Your task to perform on an android device: Show me the best 1080p monitor on Target.com Image 0: 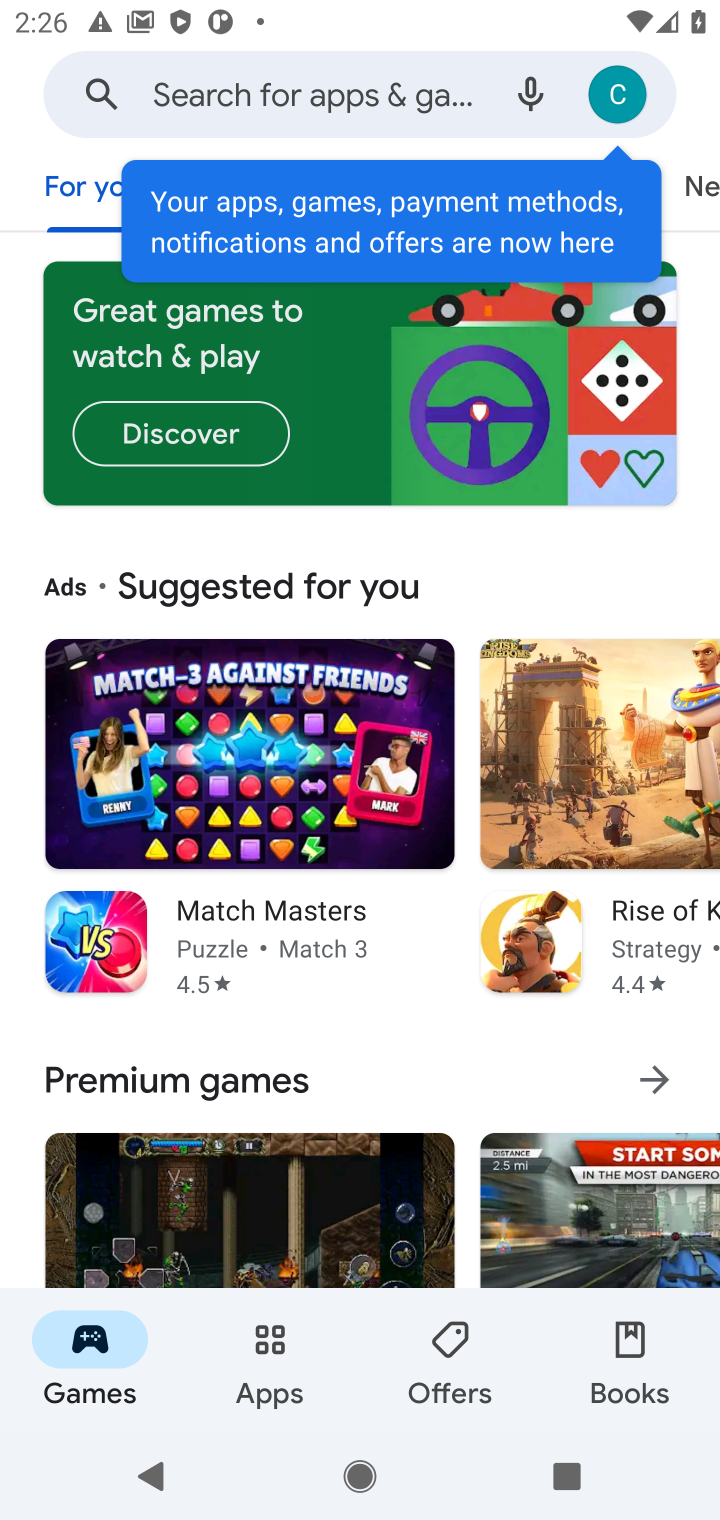
Step 0: press home button
Your task to perform on an android device: Show me the best 1080p monitor on Target.com Image 1: 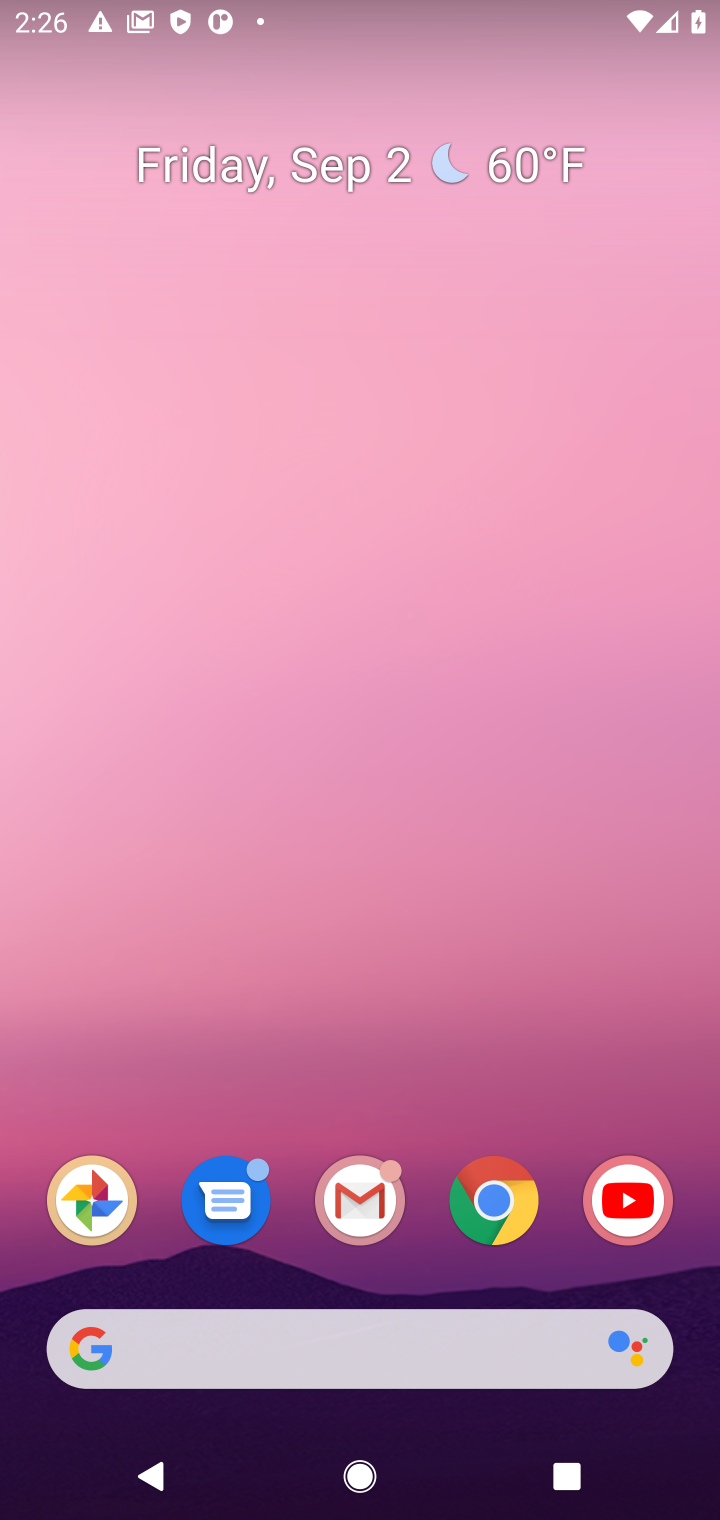
Step 1: click (489, 1203)
Your task to perform on an android device: Show me the best 1080p monitor on Target.com Image 2: 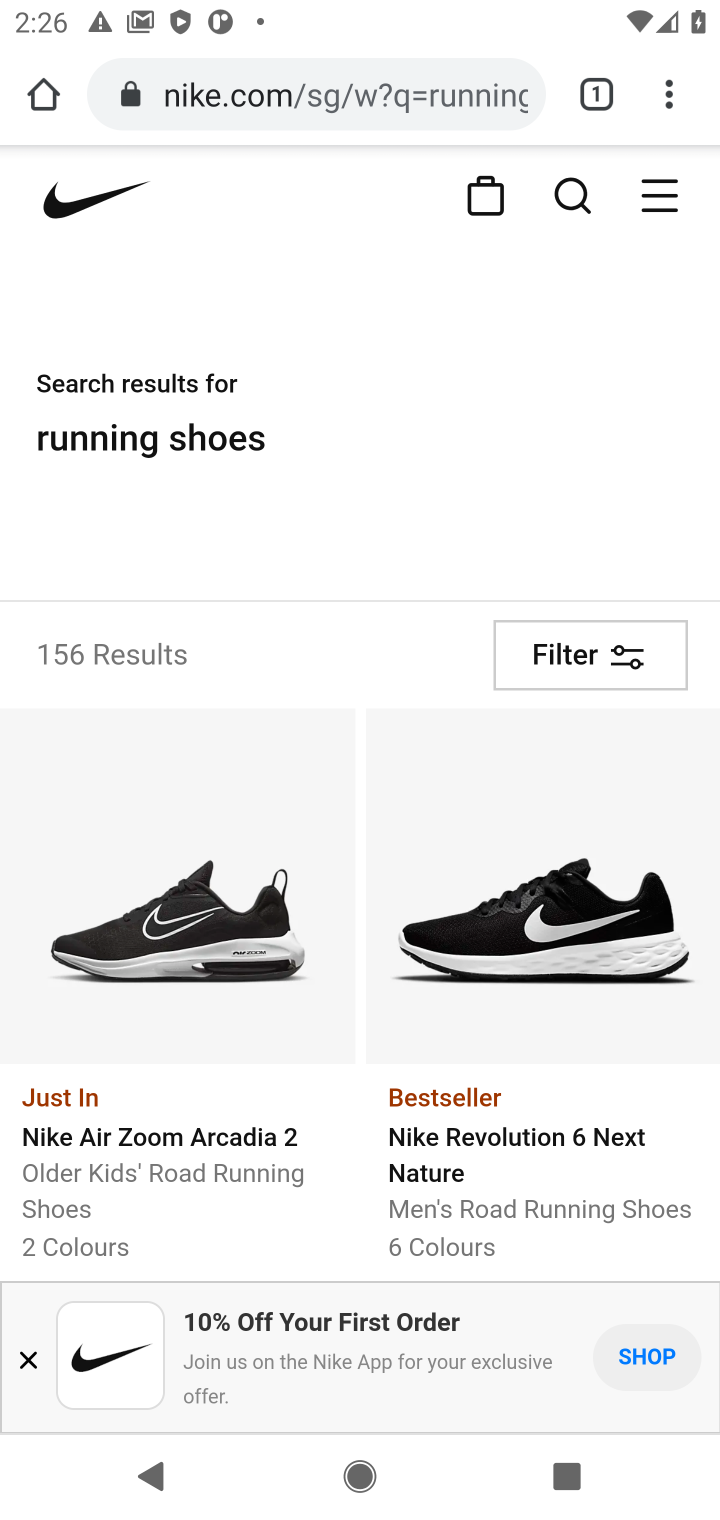
Step 2: click (445, 95)
Your task to perform on an android device: Show me the best 1080p monitor on Target.com Image 3: 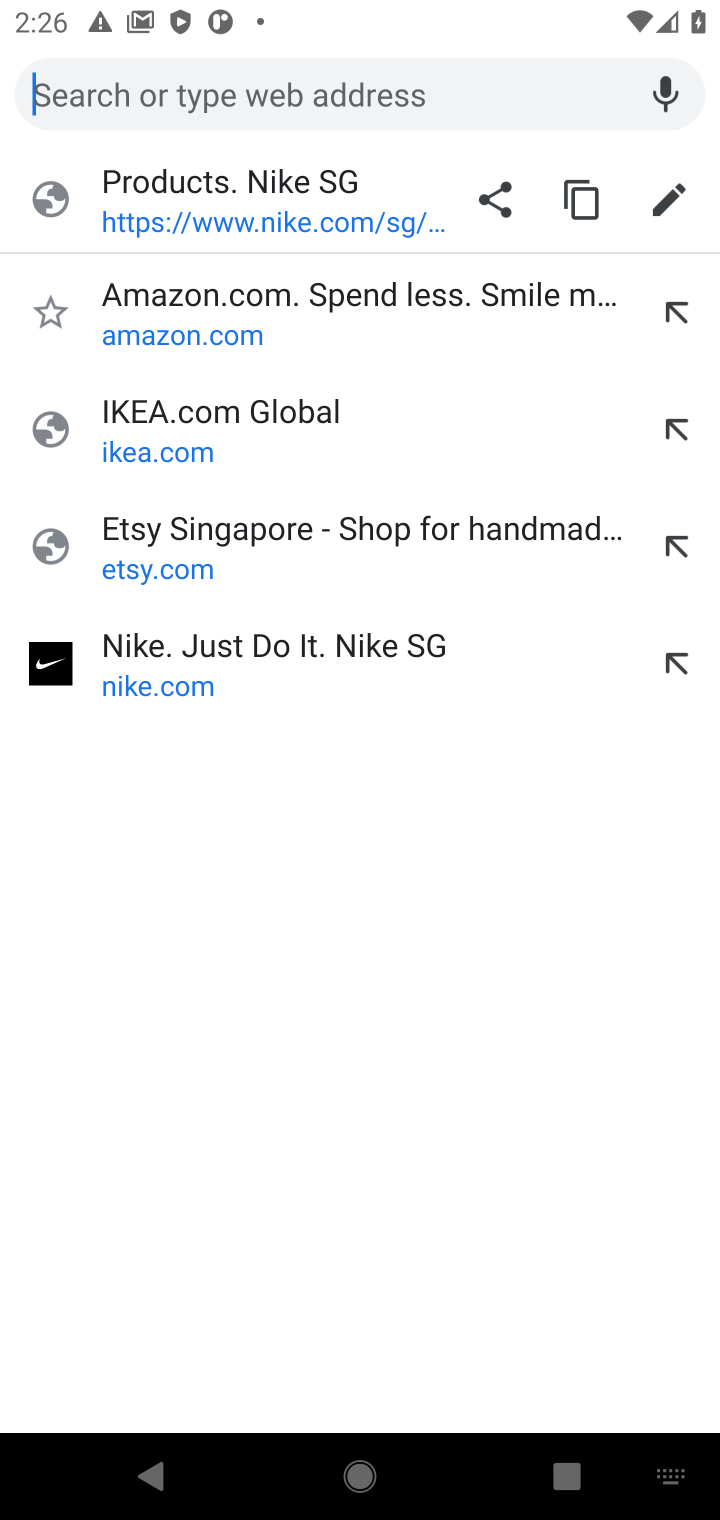
Step 3: type "Target.com"
Your task to perform on an android device: Show me the best 1080p monitor on Target.com Image 4: 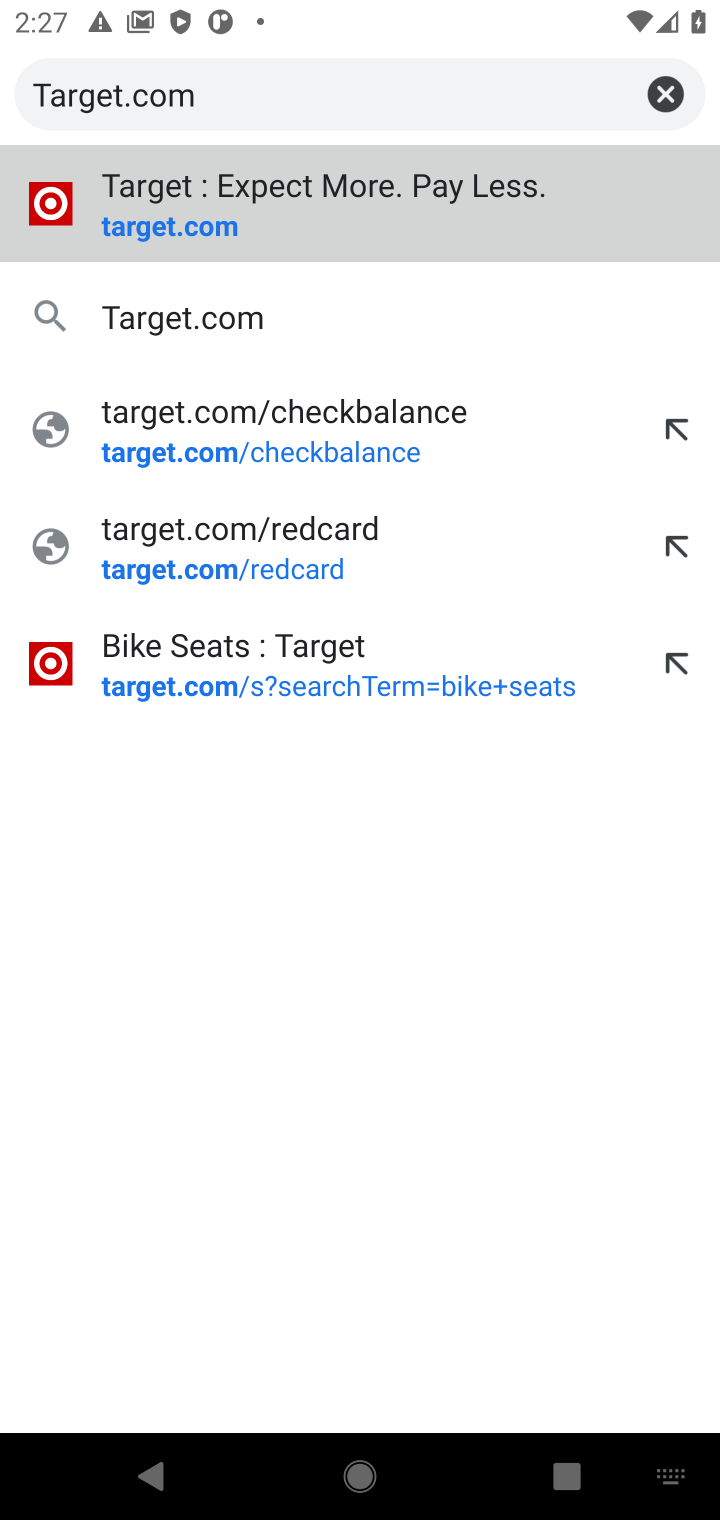
Step 4: press enter
Your task to perform on an android device: Show me the best 1080p monitor on Target.com Image 5: 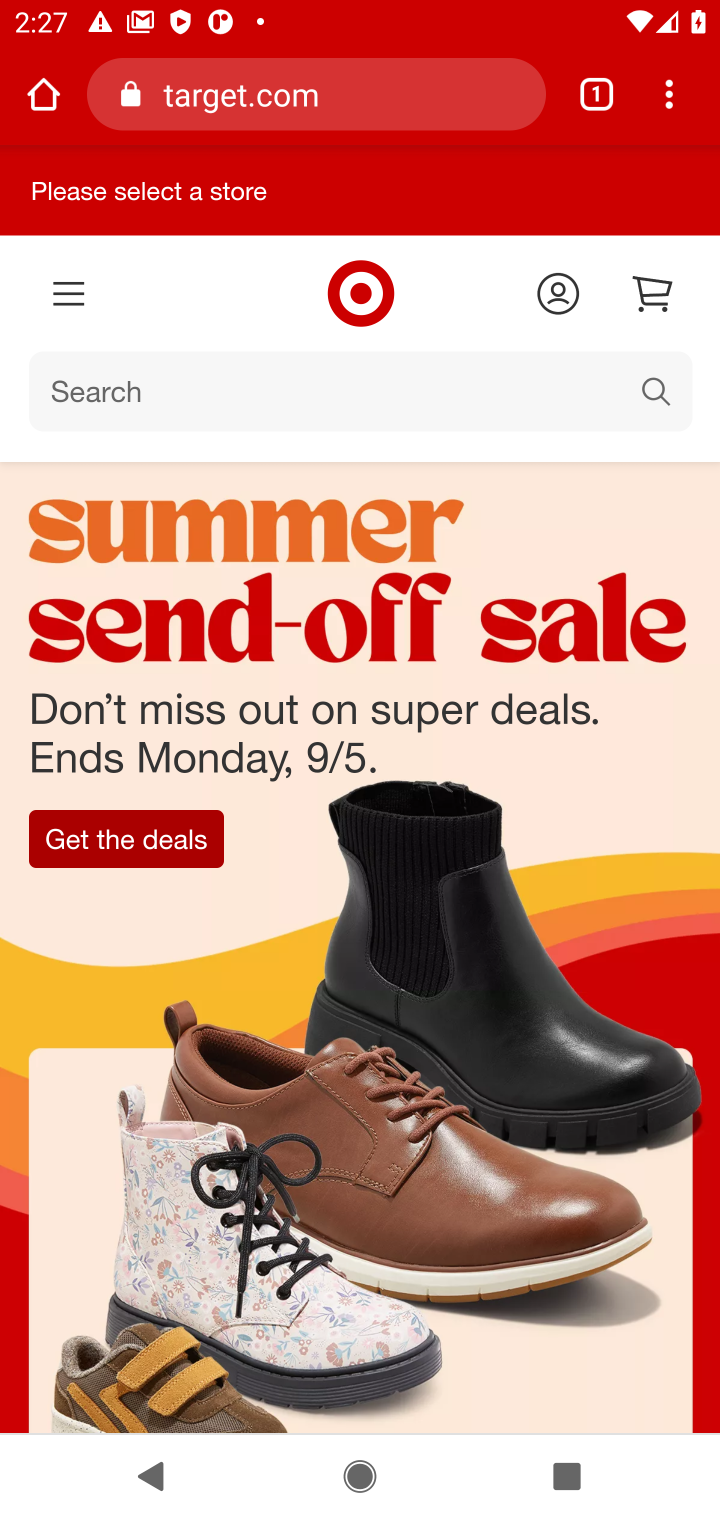
Step 5: click (647, 389)
Your task to perform on an android device: Show me the best 1080p monitor on Target.com Image 6: 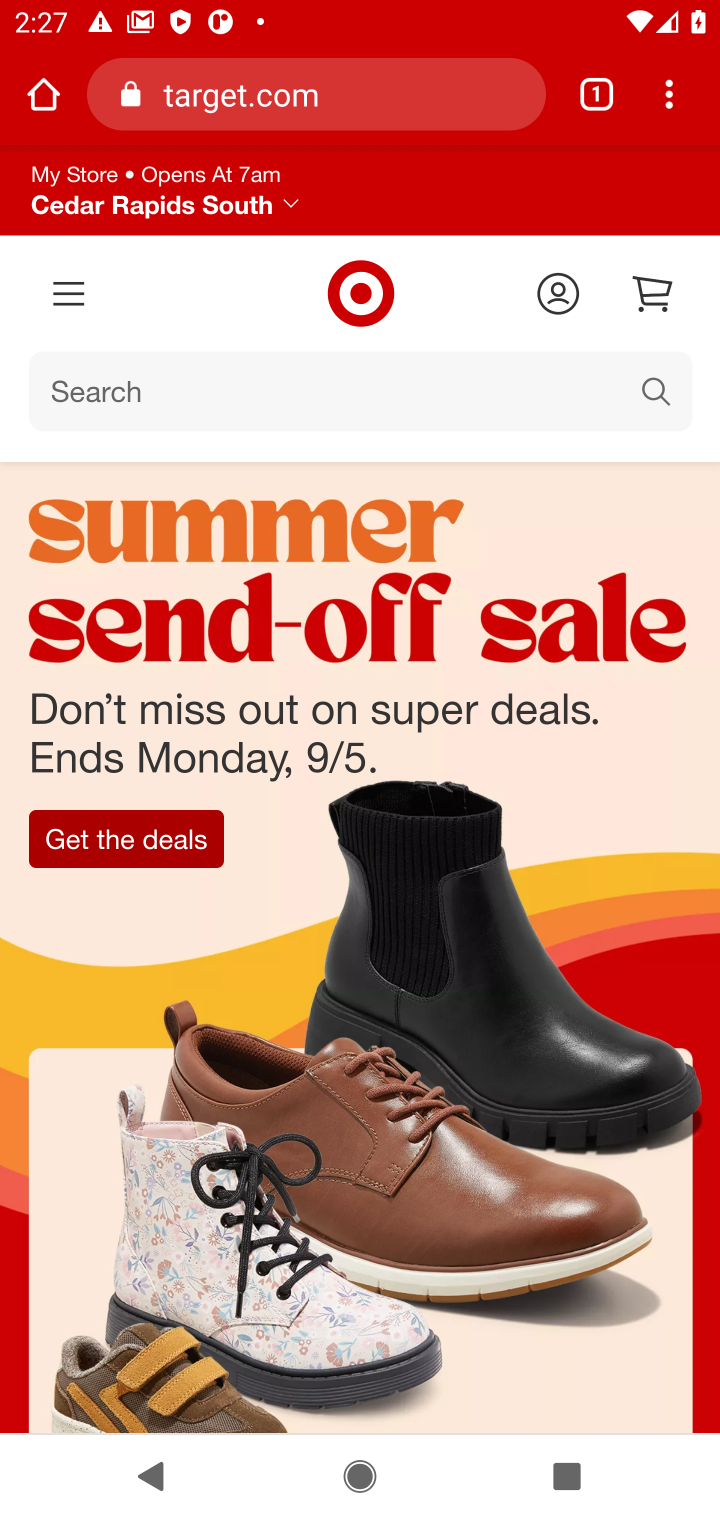
Step 6: click (654, 387)
Your task to perform on an android device: Show me the best 1080p monitor on Target.com Image 7: 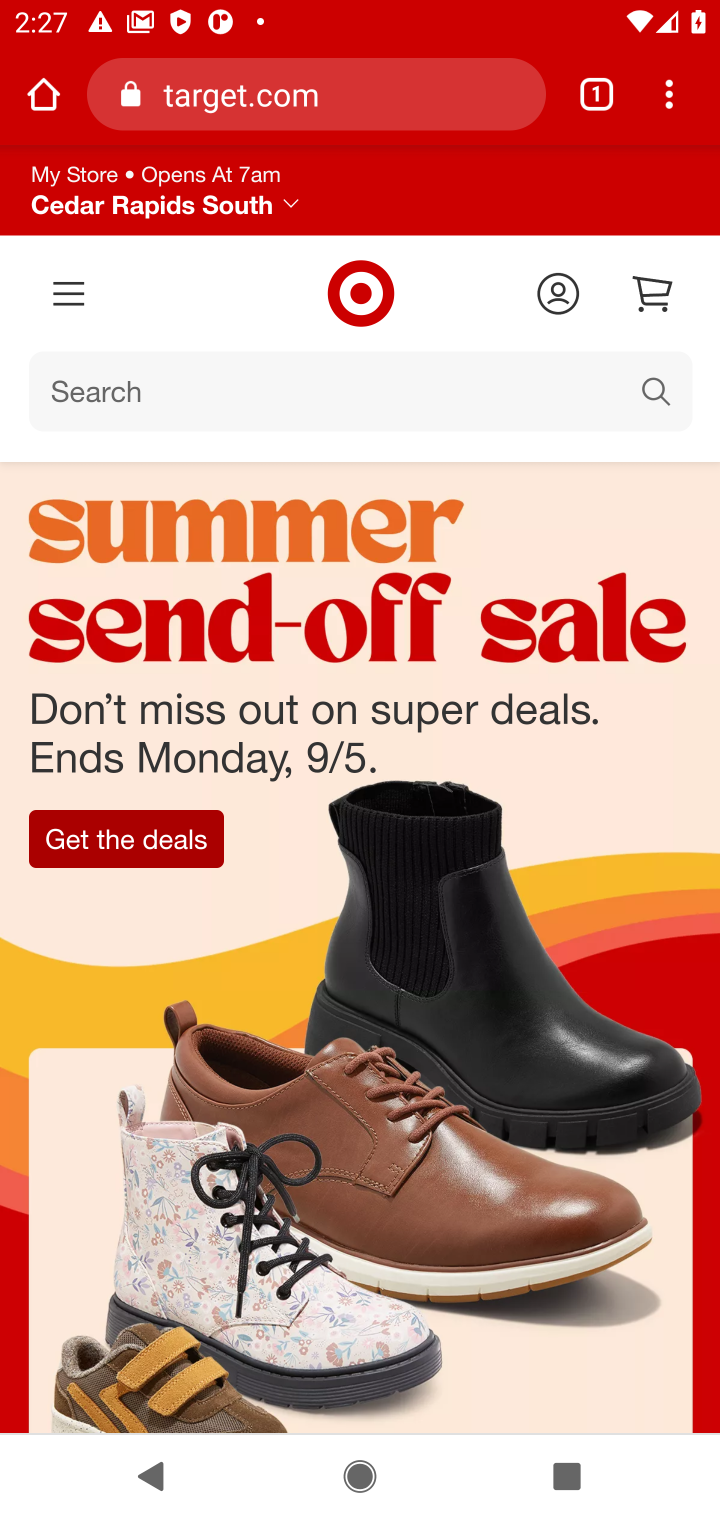
Step 7: click (446, 392)
Your task to perform on an android device: Show me the best 1080p monitor on Target.com Image 8: 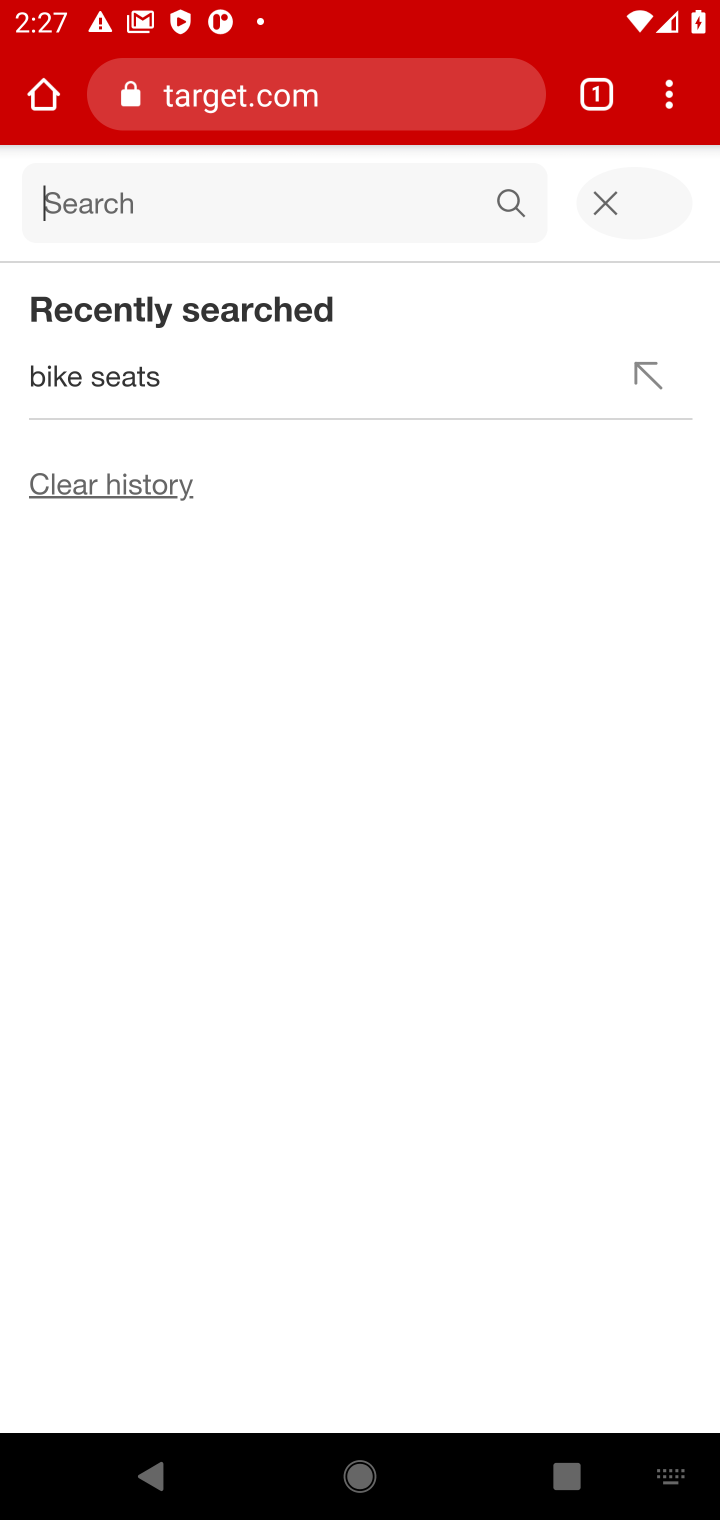
Step 8: type "1080p monitor"
Your task to perform on an android device: Show me the best 1080p monitor on Target.com Image 9: 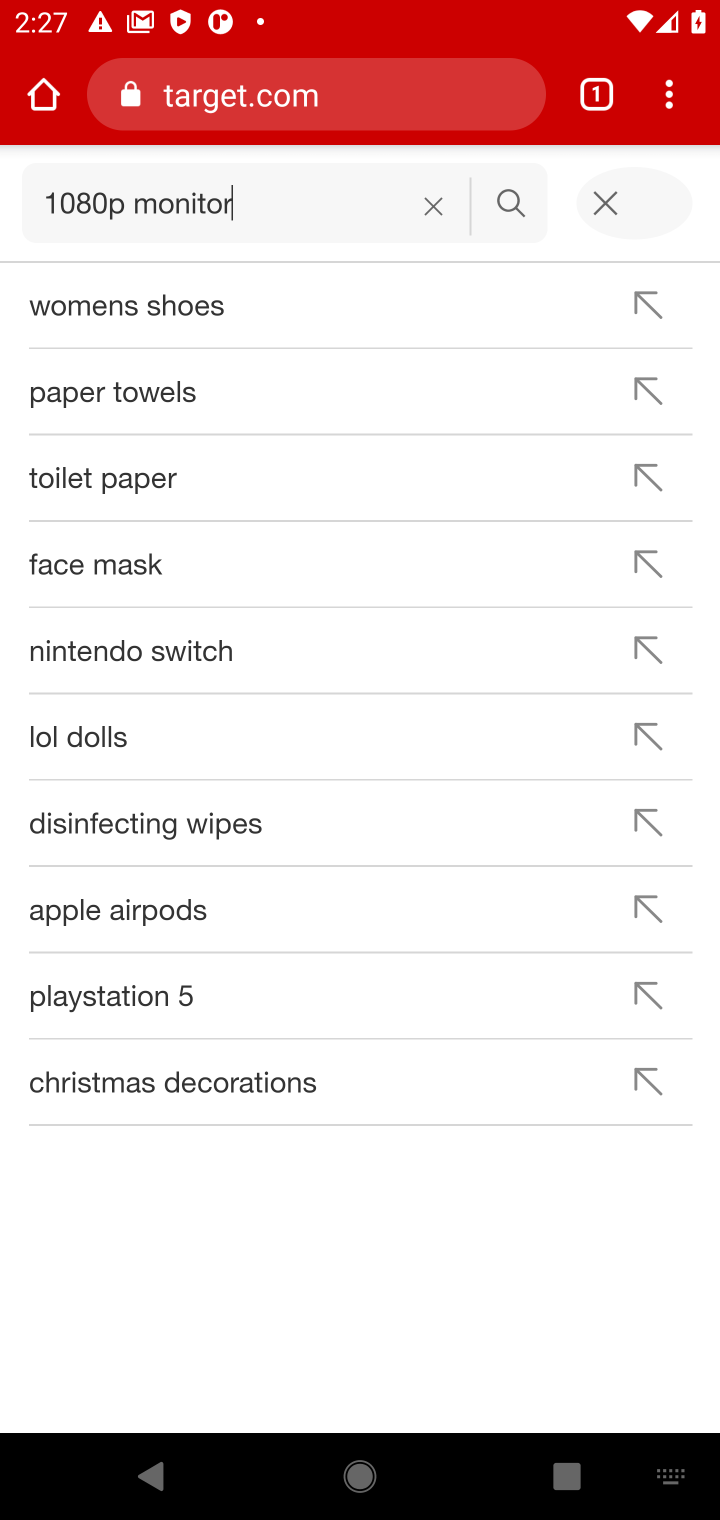
Step 9: press enter
Your task to perform on an android device: Show me the best 1080p monitor on Target.com Image 10: 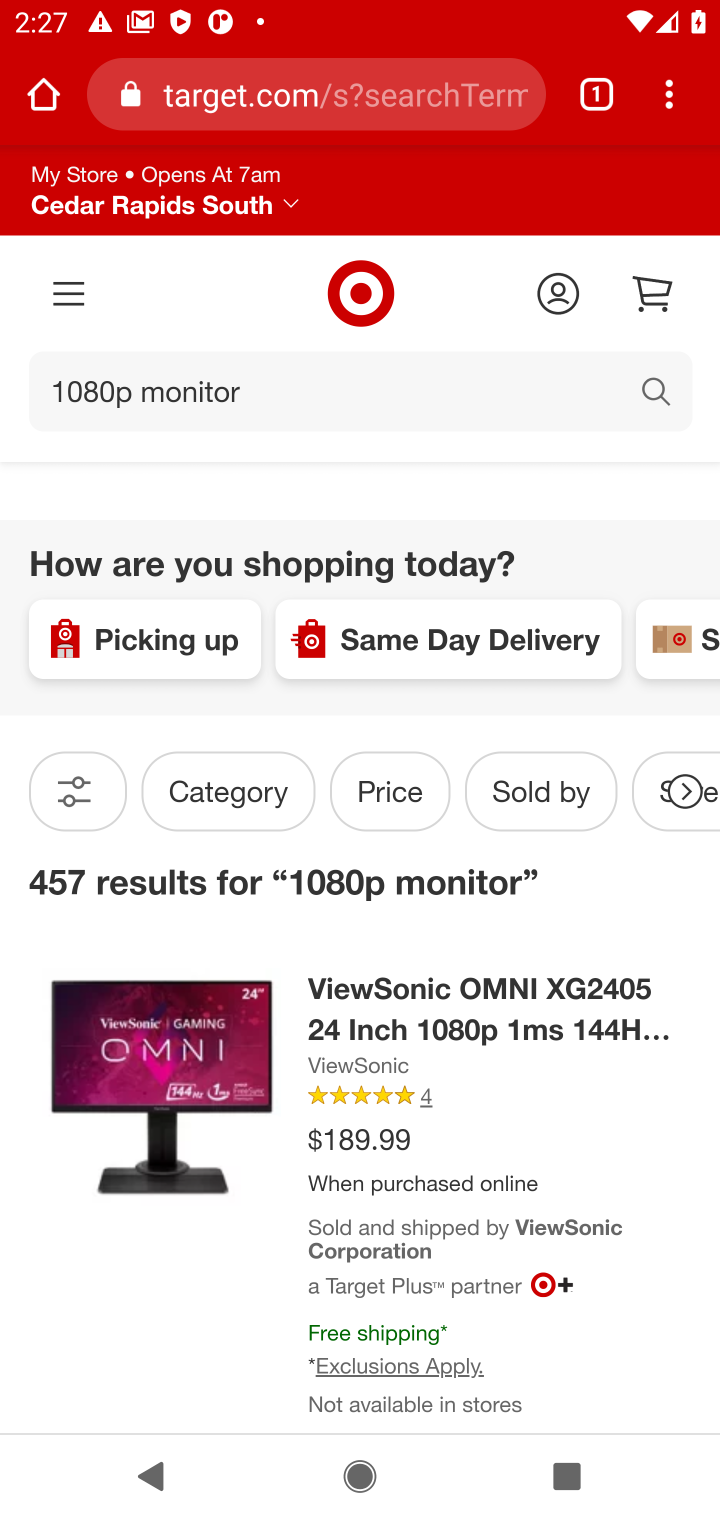
Step 10: task complete